Your task to perform on an android device: Check the weather Image 0: 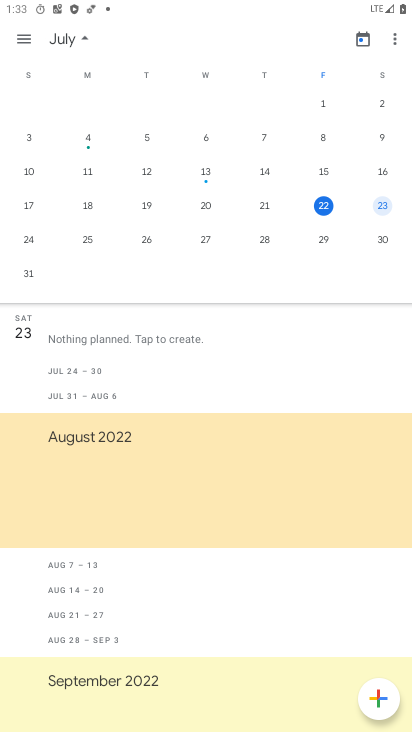
Step 0: drag from (188, 549) to (303, 292)
Your task to perform on an android device: Check the weather Image 1: 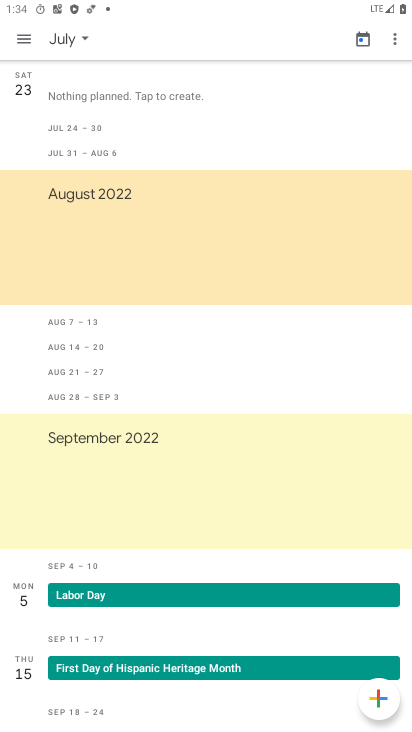
Step 1: drag from (177, 520) to (246, 315)
Your task to perform on an android device: Check the weather Image 2: 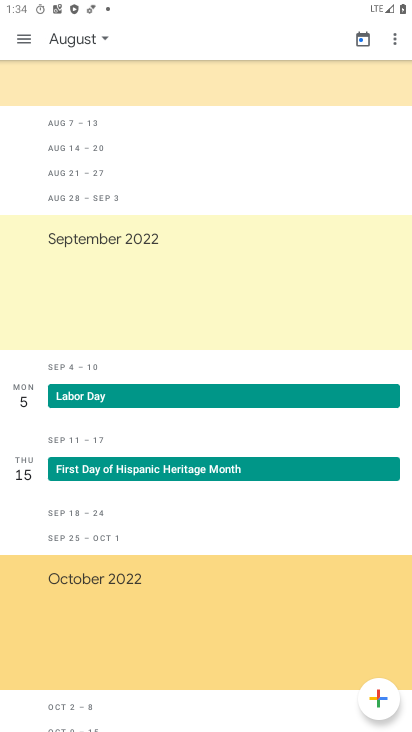
Step 2: drag from (217, 543) to (271, 315)
Your task to perform on an android device: Check the weather Image 3: 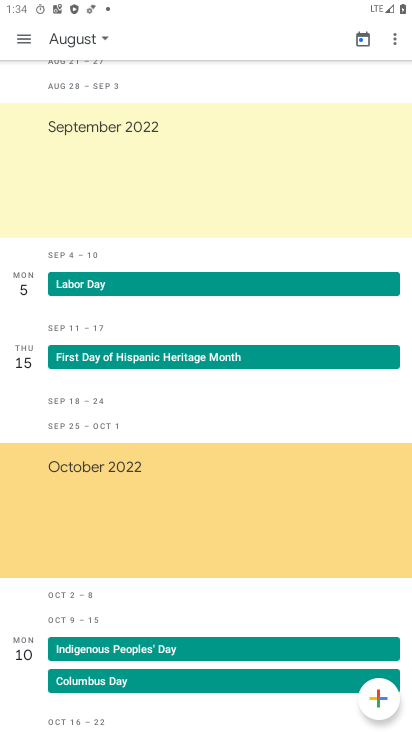
Step 3: drag from (237, 73) to (254, 386)
Your task to perform on an android device: Check the weather Image 4: 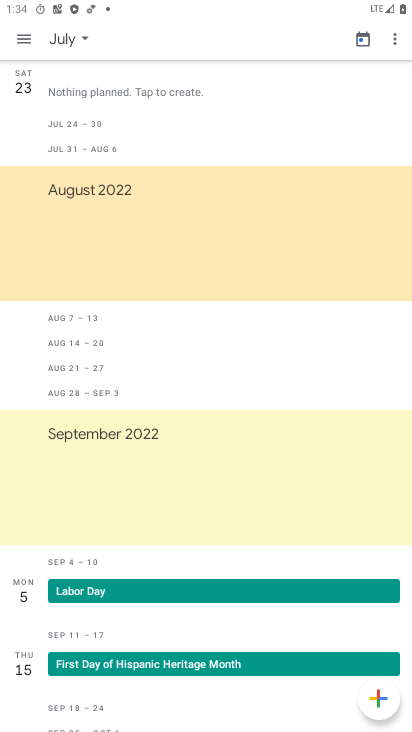
Step 4: drag from (190, 671) to (269, 294)
Your task to perform on an android device: Check the weather Image 5: 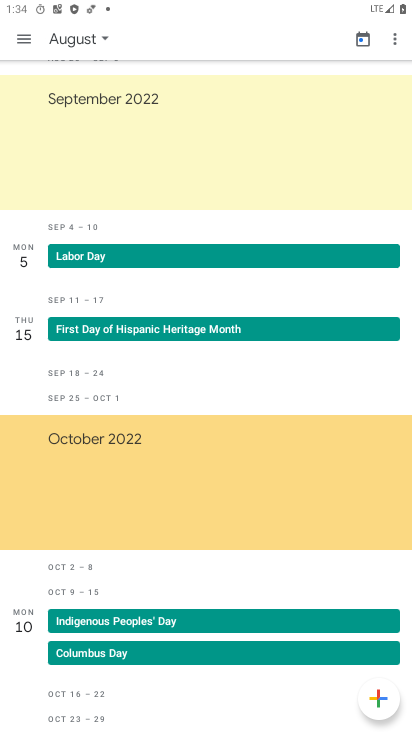
Step 5: drag from (235, 316) to (288, 674)
Your task to perform on an android device: Check the weather Image 6: 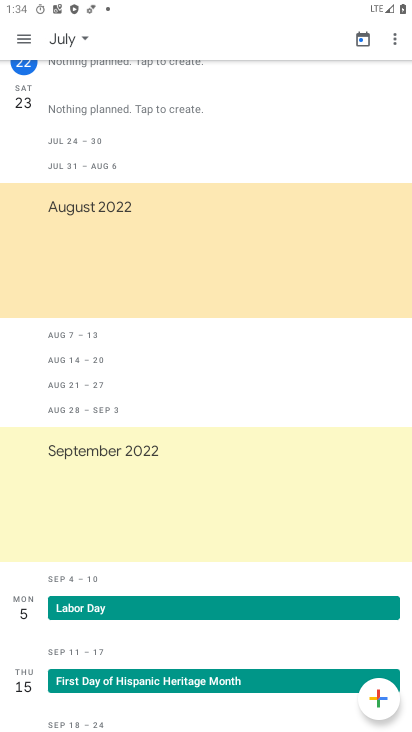
Step 6: press home button
Your task to perform on an android device: Check the weather Image 7: 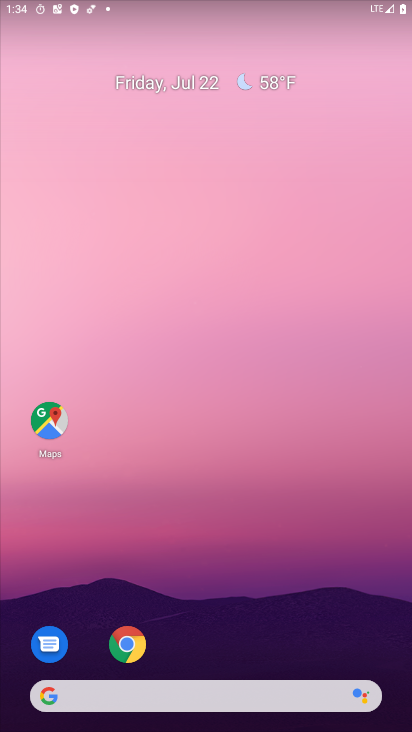
Step 7: drag from (190, 638) to (261, 103)
Your task to perform on an android device: Check the weather Image 8: 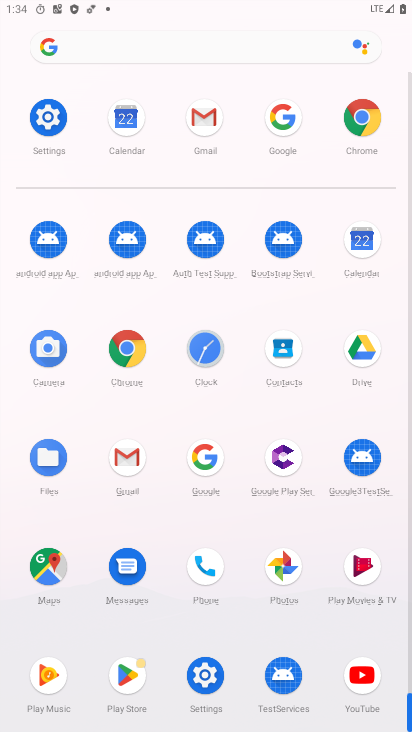
Step 8: click (147, 44)
Your task to perform on an android device: Check the weather Image 9: 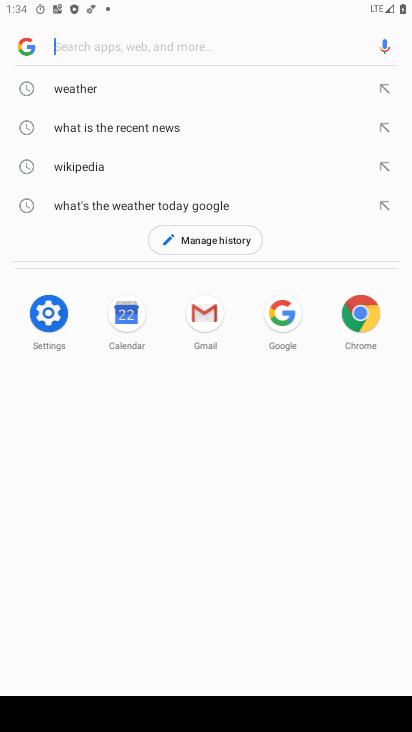
Step 9: click (82, 90)
Your task to perform on an android device: Check the weather Image 10: 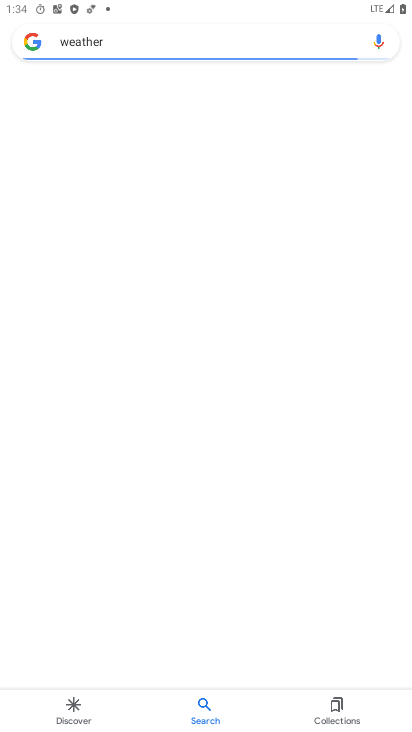
Step 10: task complete